Your task to perform on an android device: open app "Google Home" Image 0: 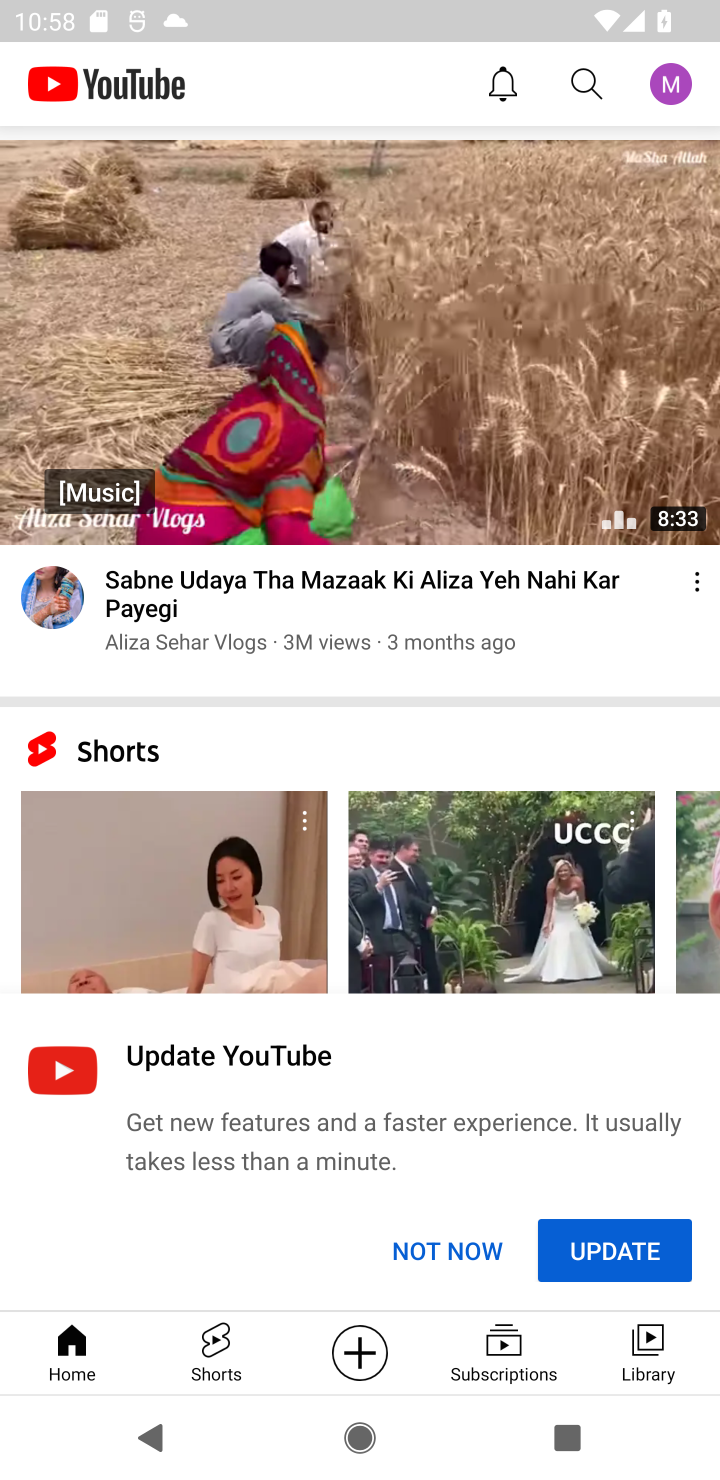
Step 0: press home button
Your task to perform on an android device: open app "Google Home" Image 1: 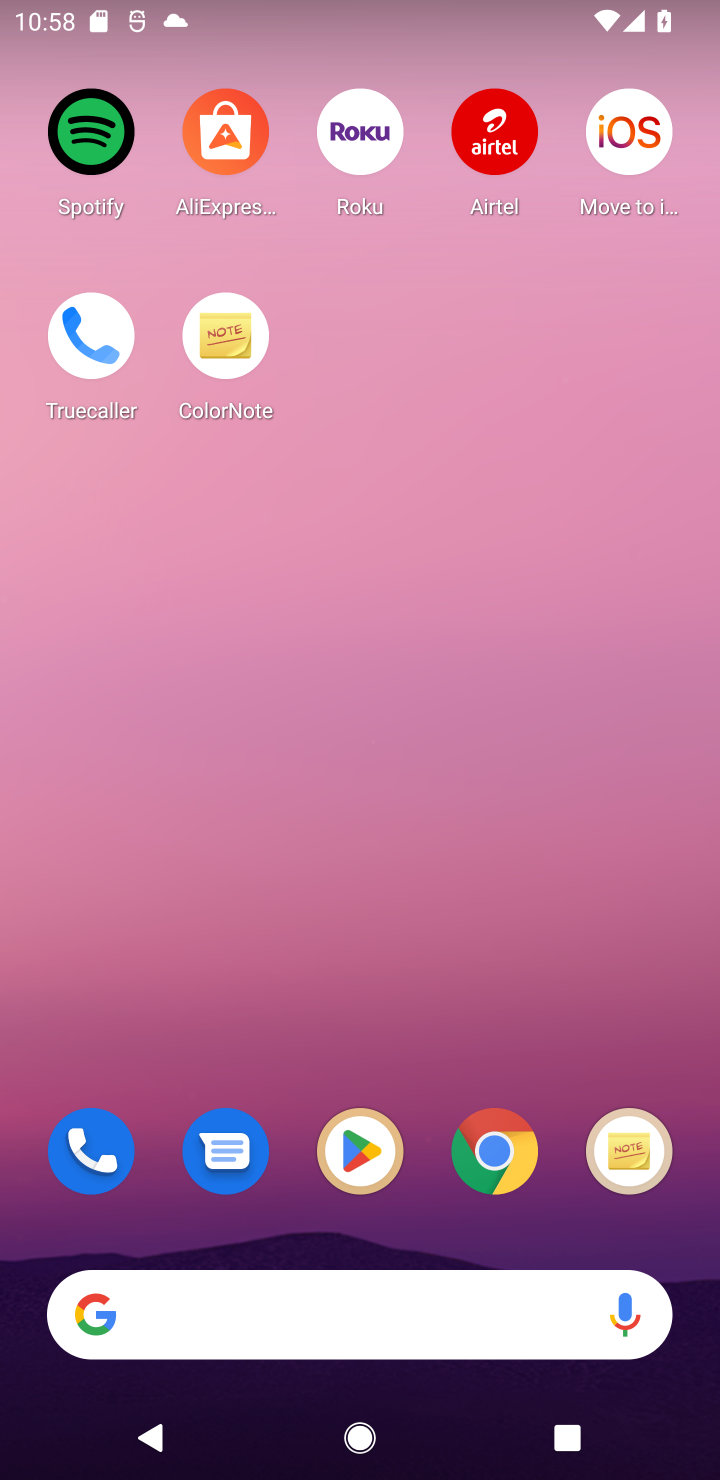
Step 1: drag from (438, 1224) to (488, 271)
Your task to perform on an android device: open app "Google Home" Image 2: 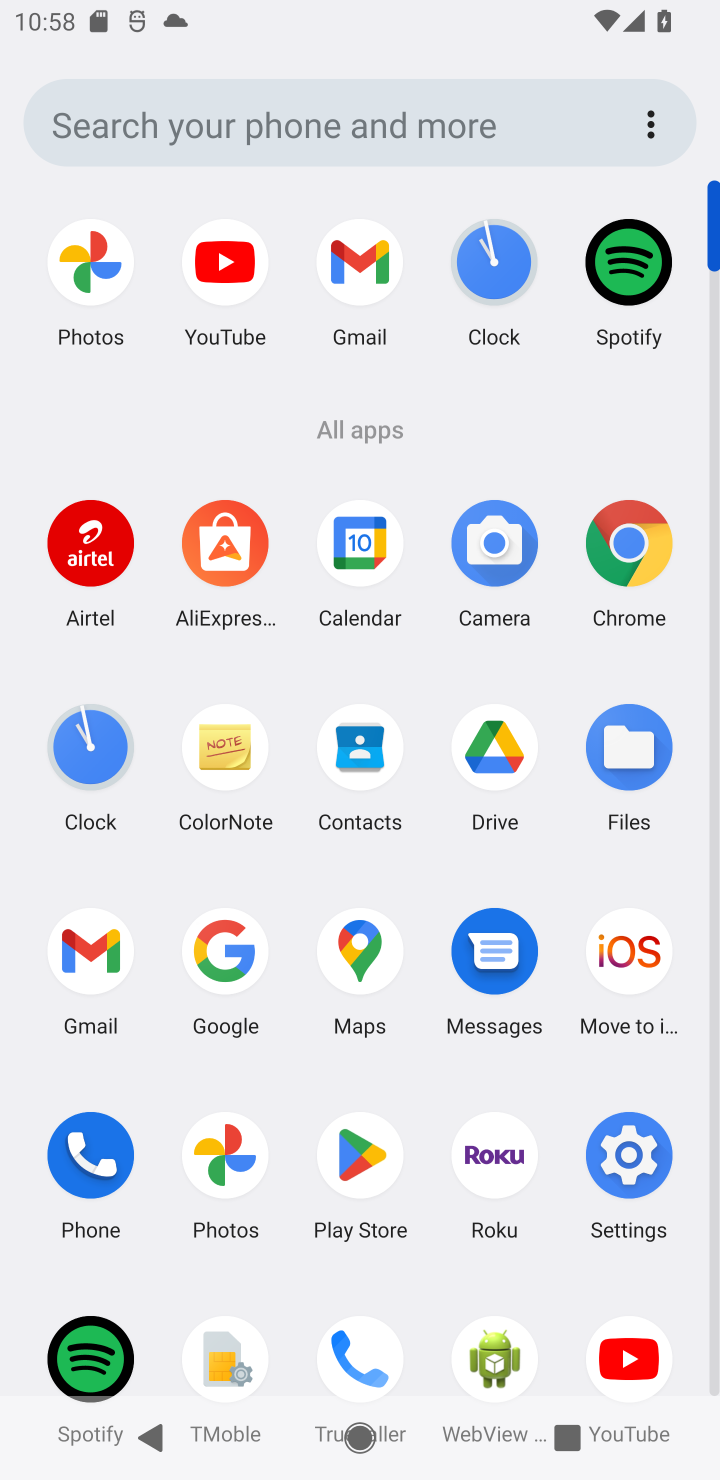
Step 2: click (360, 1149)
Your task to perform on an android device: open app "Google Home" Image 3: 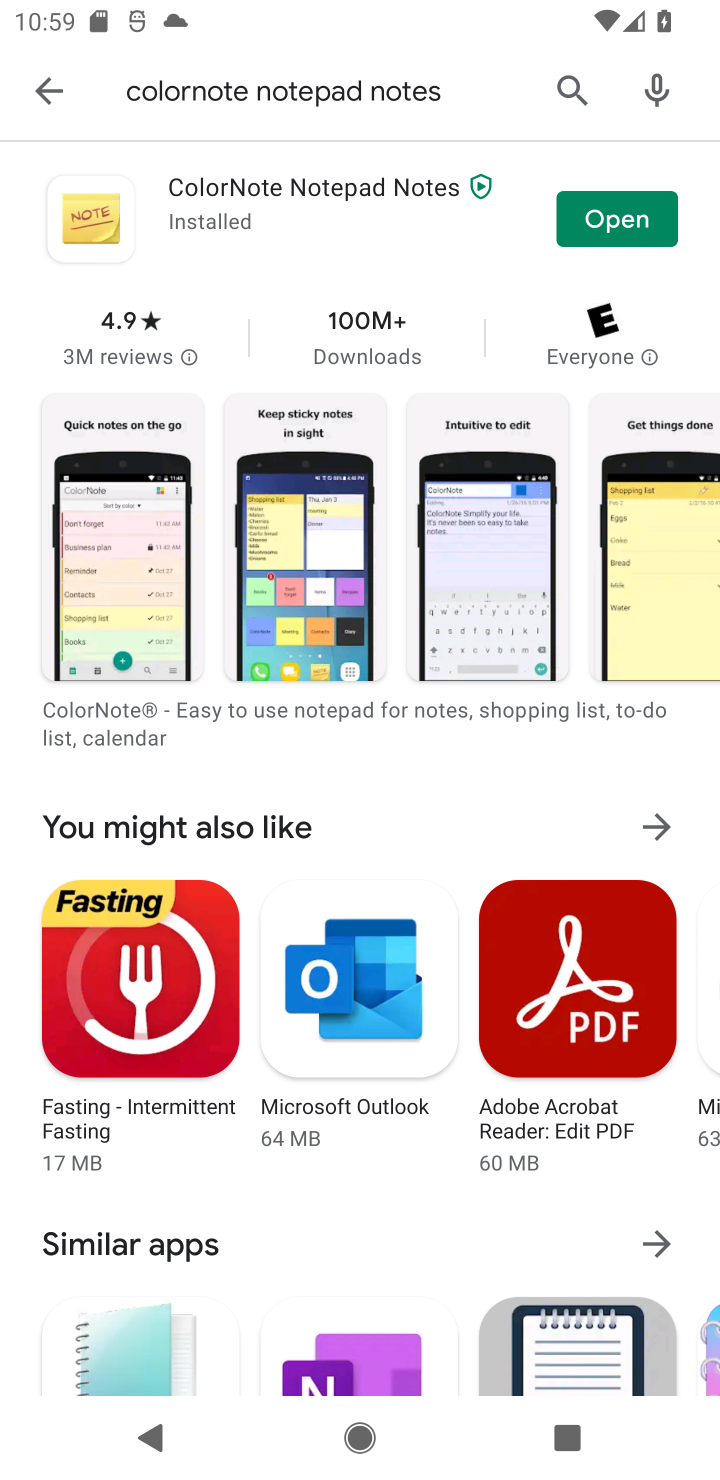
Step 3: click (561, 75)
Your task to perform on an android device: open app "Google Home" Image 4: 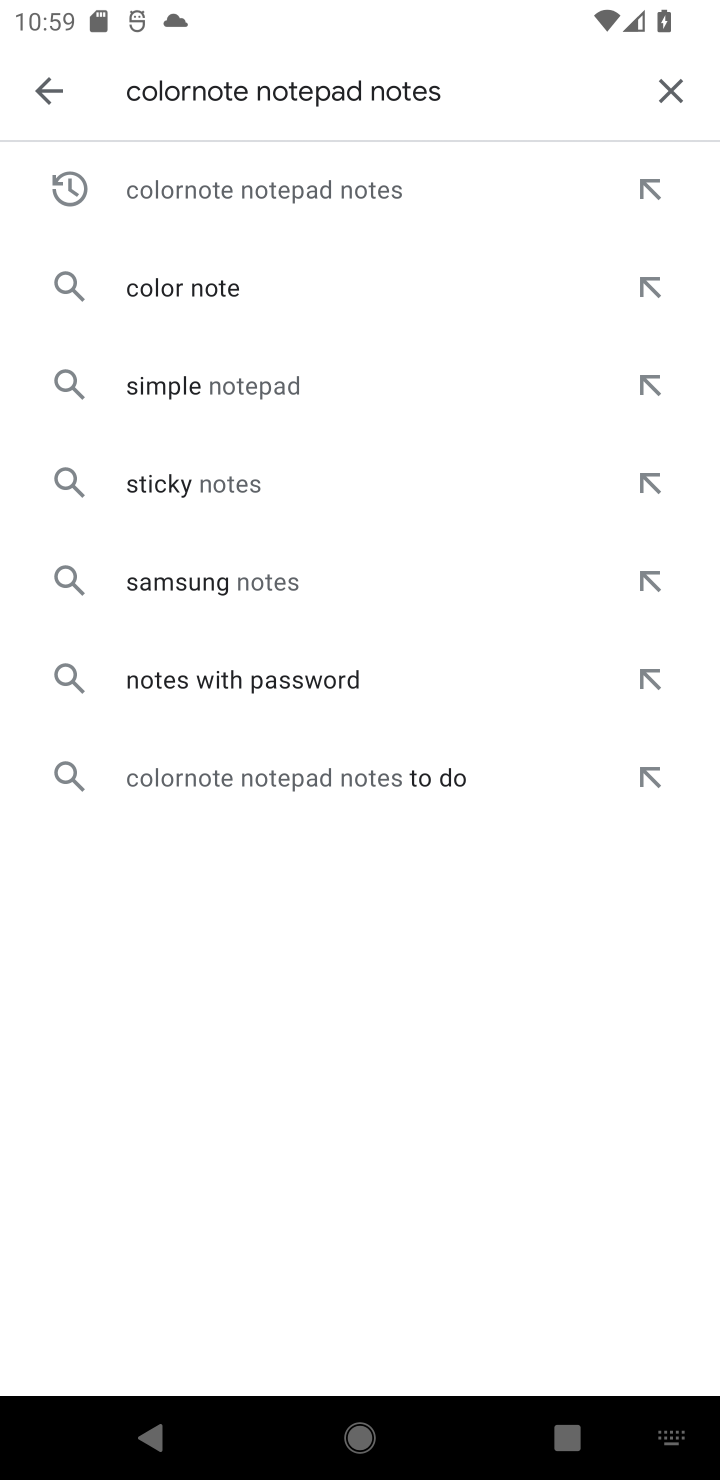
Step 4: click (668, 76)
Your task to perform on an android device: open app "Google Home" Image 5: 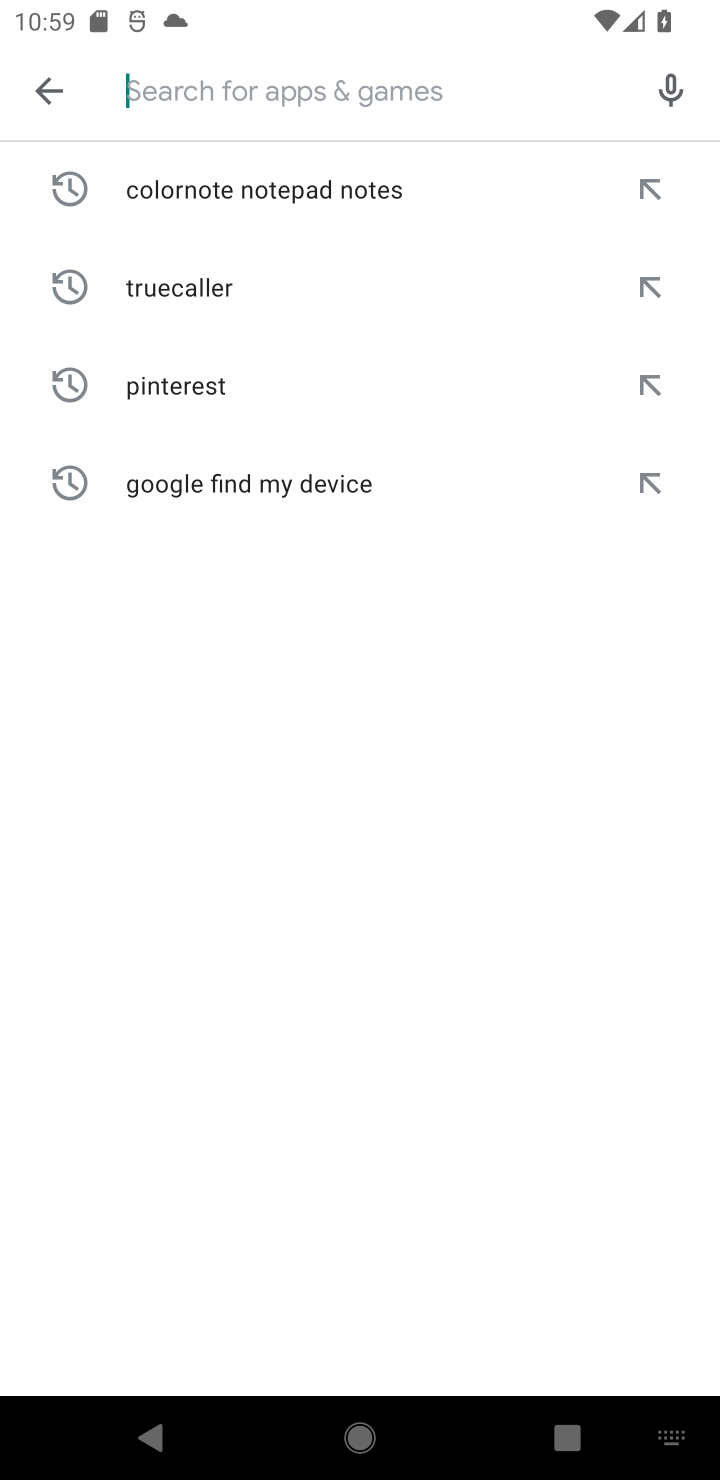
Step 5: type "Google Home"
Your task to perform on an android device: open app "Google Home" Image 6: 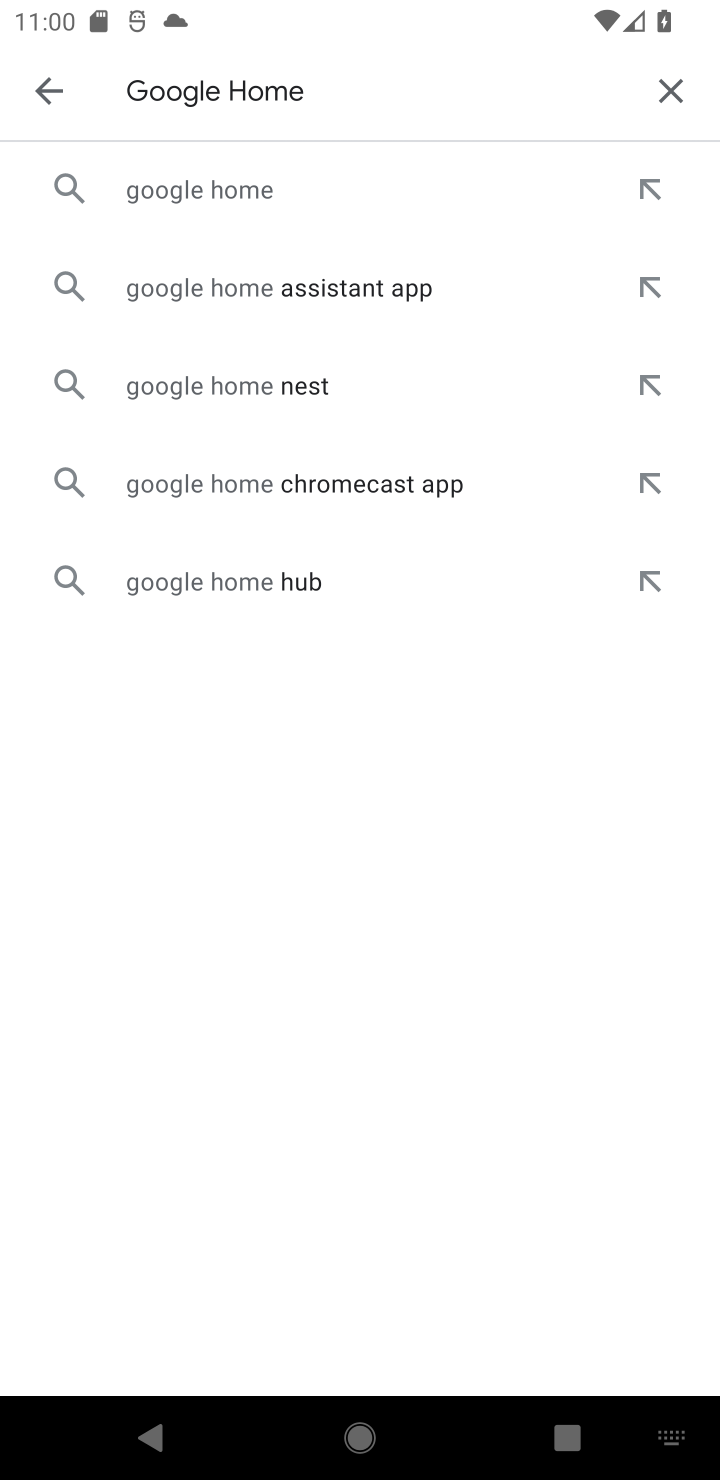
Step 6: click (284, 186)
Your task to perform on an android device: open app "Google Home" Image 7: 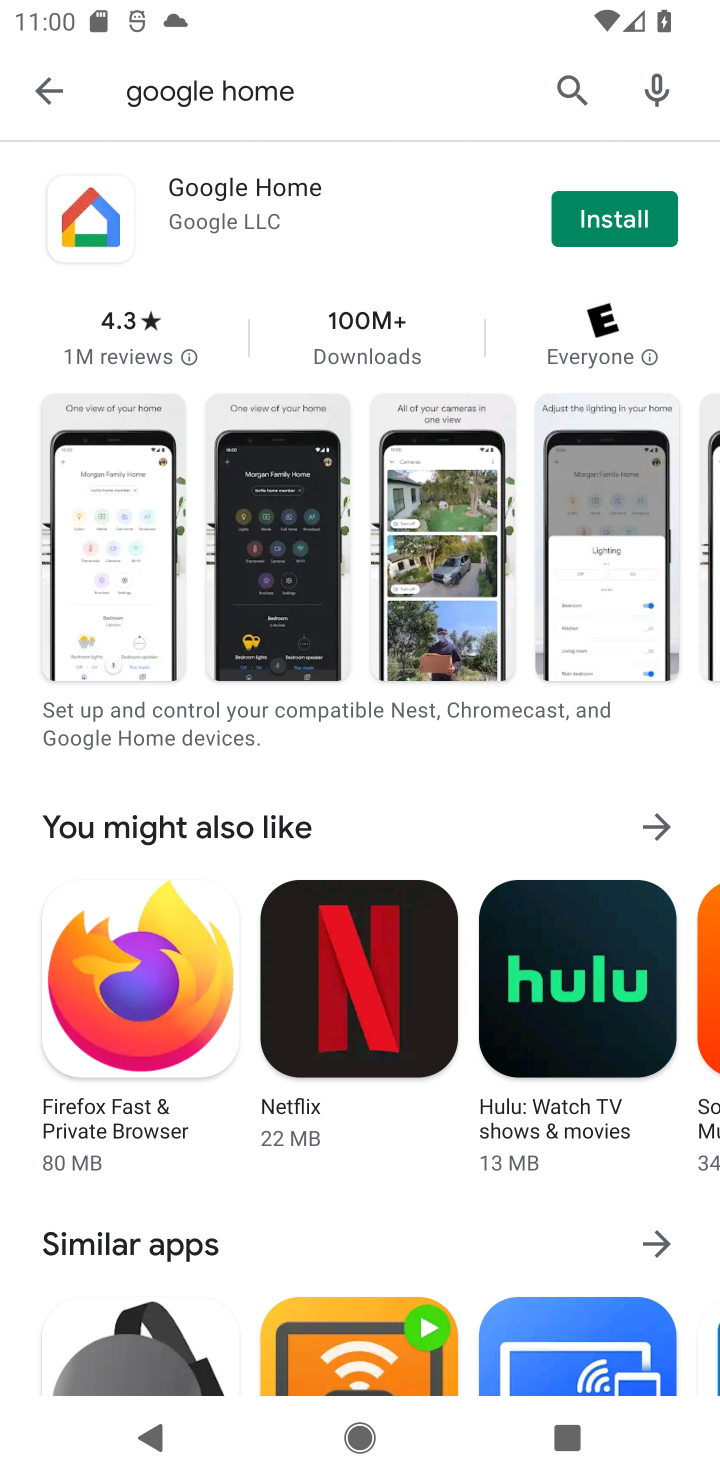
Step 7: task complete